Your task to perform on an android device: Go to settings Image 0: 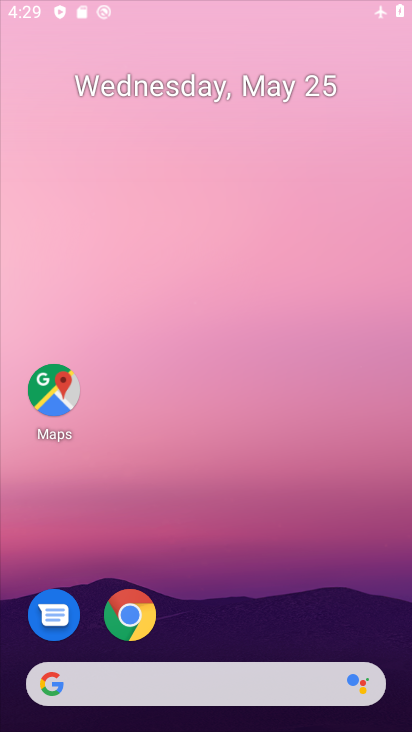
Step 0: press home button
Your task to perform on an android device: Go to settings Image 1: 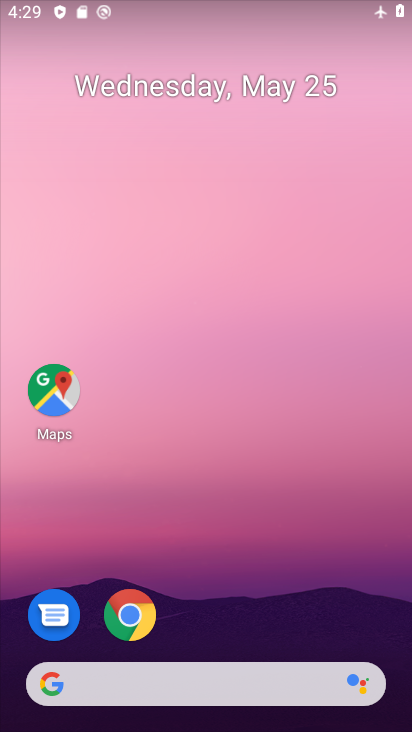
Step 1: drag from (266, 597) to (242, 200)
Your task to perform on an android device: Go to settings Image 2: 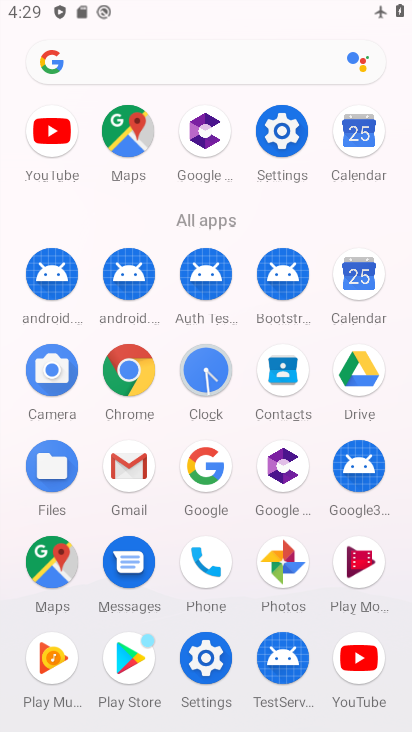
Step 2: click (261, 136)
Your task to perform on an android device: Go to settings Image 3: 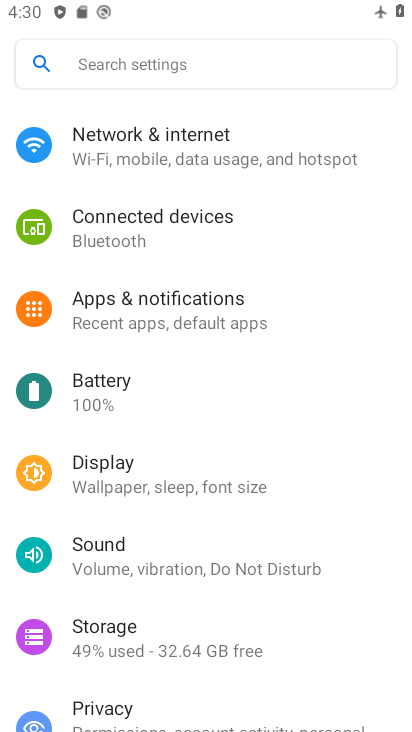
Step 3: task complete